Your task to perform on an android device: Open calendar and show me the fourth week of next month Image 0: 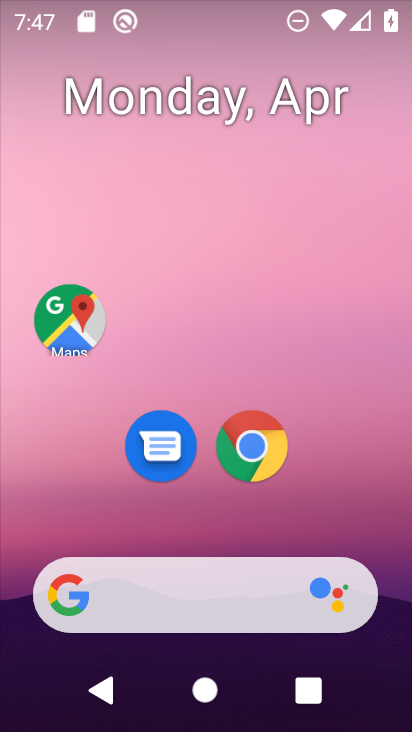
Step 0: drag from (357, 441) to (260, 16)
Your task to perform on an android device: Open calendar and show me the fourth week of next month Image 1: 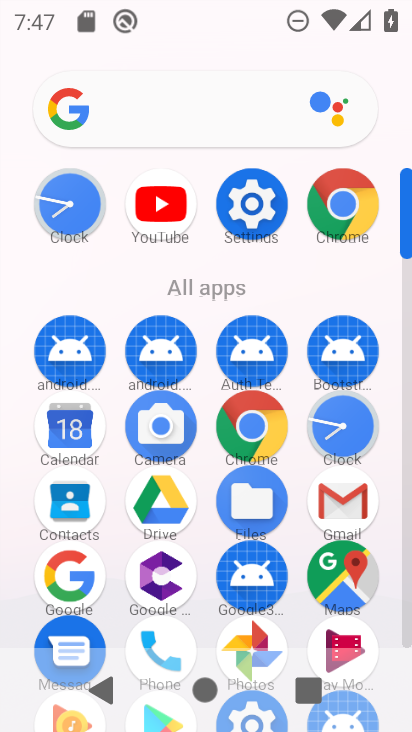
Step 1: drag from (18, 527) to (29, 229)
Your task to perform on an android device: Open calendar and show me the fourth week of next month Image 2: 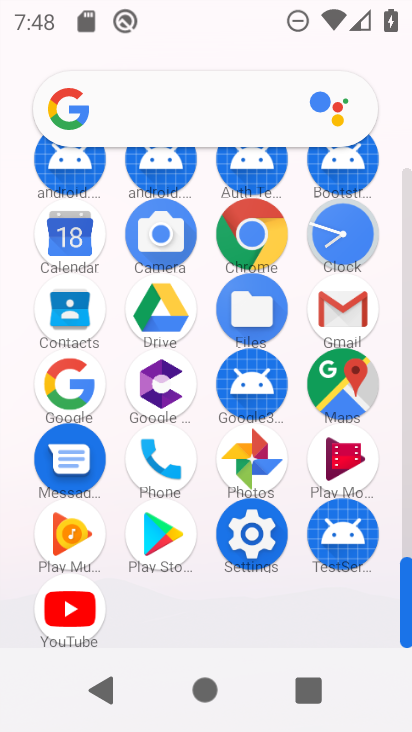
Step 2: drag from (21, 259) to (12, 495)
Your task to perform on an android device: Open calendar and show me the fourth week of next month Image 3: 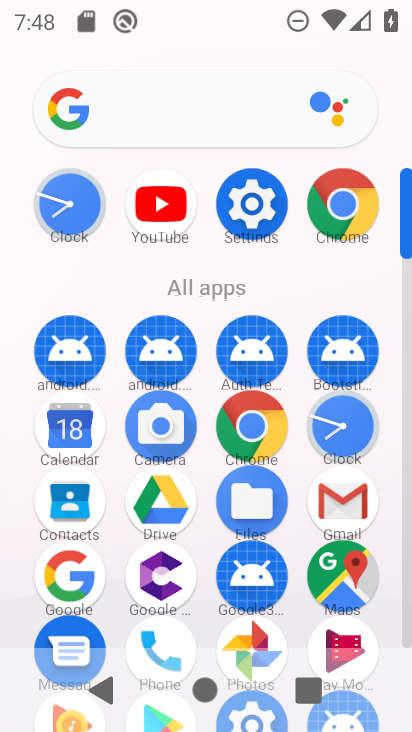
Step 3: click (65, 426)
Your task to perform on an android device: Open calendar and show me the fourth week of next month Image 4: 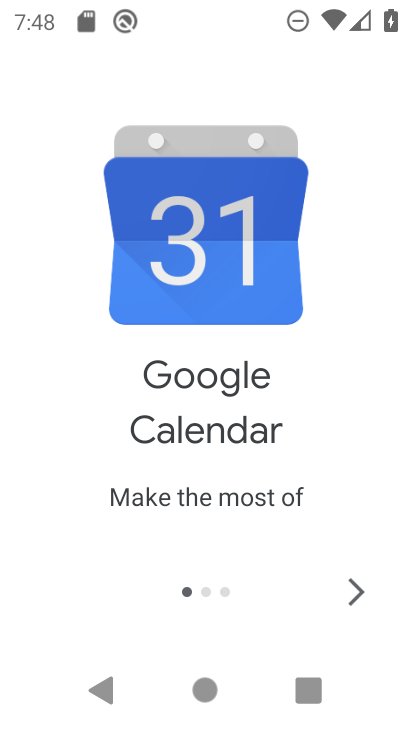
Step 4: click (352, 584)
Your task to perform on an android device: Open calendar and show me the fourth week of next month Image 5: 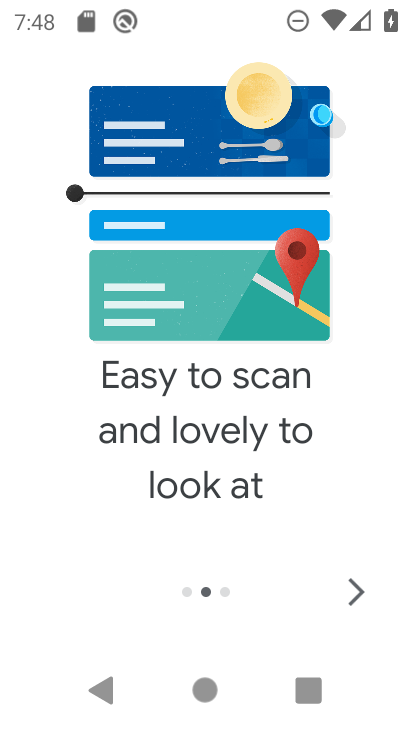
Step 5: click (352, 584)
Your task to perform on an android device: Open calendar and show me the fourth week of next month Image 6: 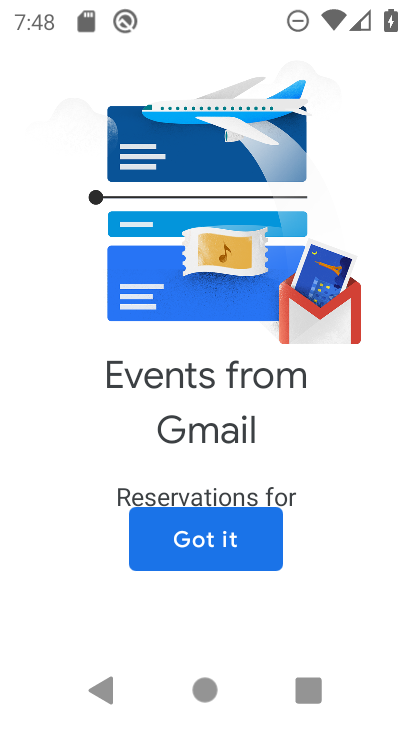
Step 6: click (238, 532)
Your task to perform on an android device: Open calendar and show me the fourth week of next month Image 7: 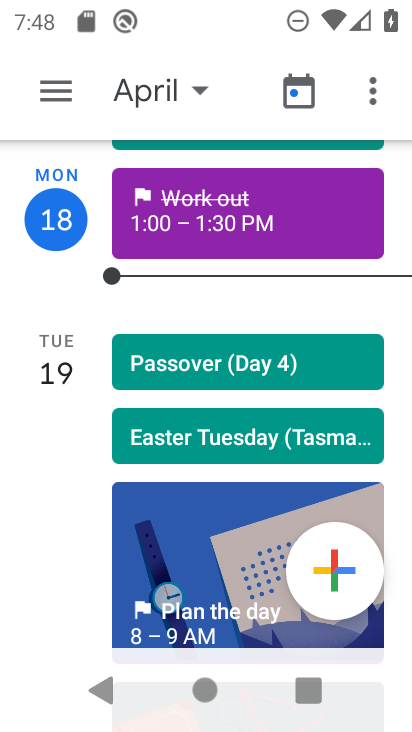
Step 7: click (66, 87)
Your task to perform on an android device: Open calendar and show me the fourth week of next month Image 8: 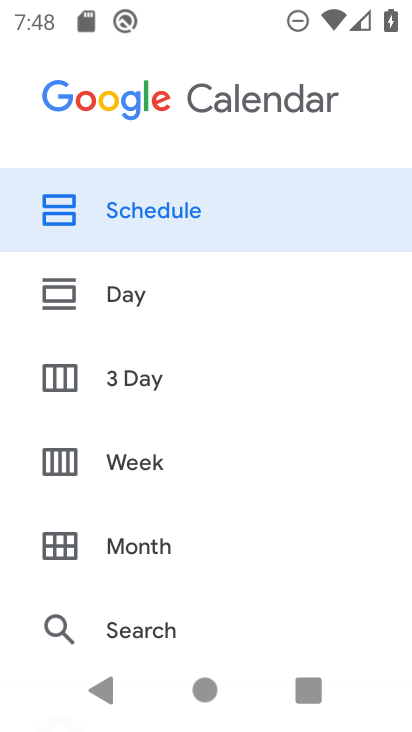
Step 8: click (205, 550)
Your task to perform on an android device: Open calendar and show me the fourth week of next month Image 9: 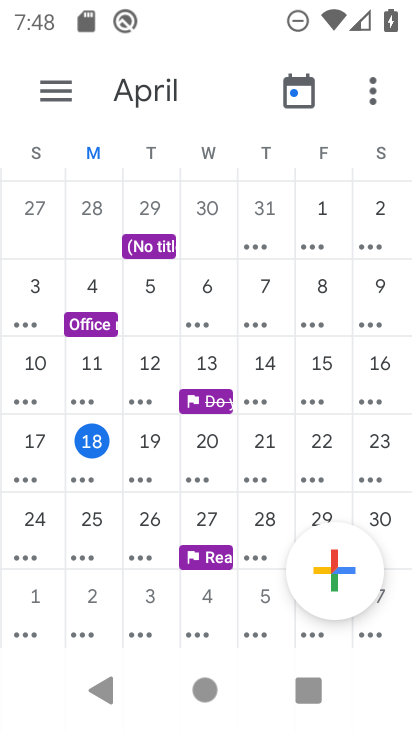
Step 9: drag from (331, 357) to (1, 297)
Your task to perform on an android device: Open calendar and show me the fourth week of next month Image 10: 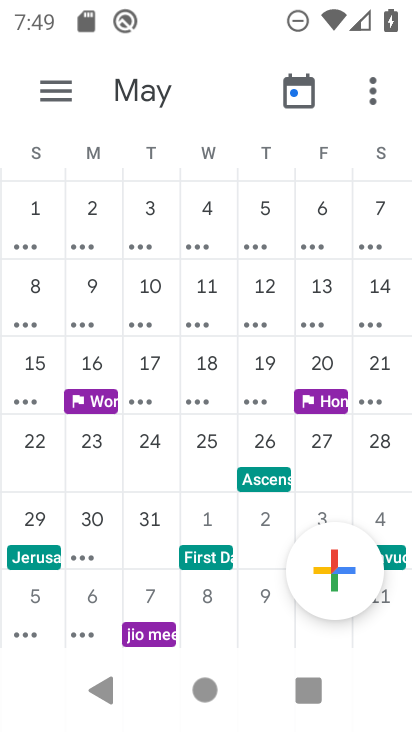
Step 10: click (97, 457)
Your task to perform on an android device: Open calendar and show me the fourth week of next month Image 11: 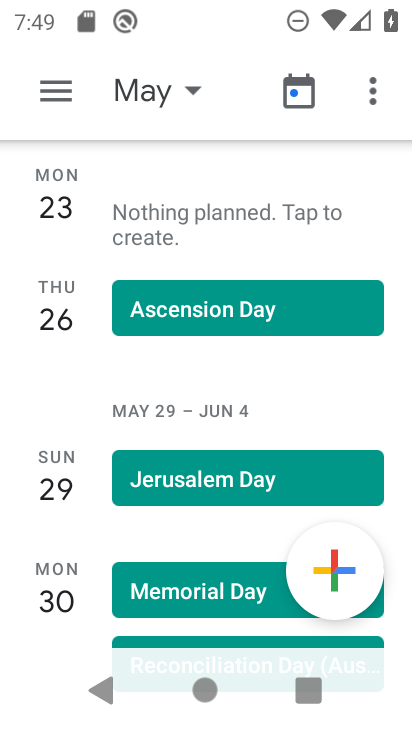
Step 11: drag from (108, 503) to (120, 158)
Your task to perform on an android device: Open calendar and show me the fourth week of next month Image 12: 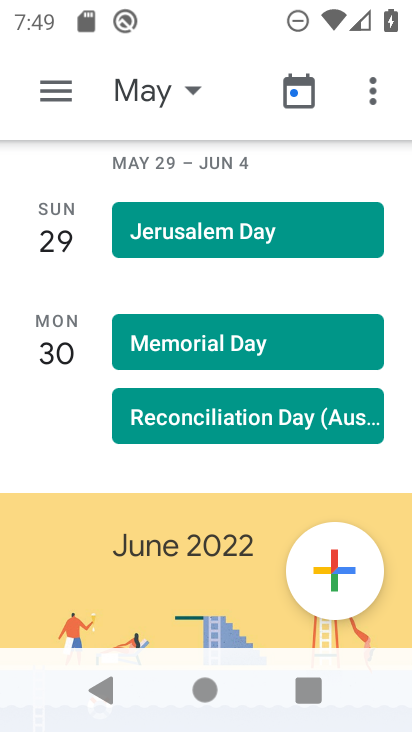
Step 12: click (40, 85)
Your task to perform on an android device: Open calendar and show me the fourth week of next month Image 13: 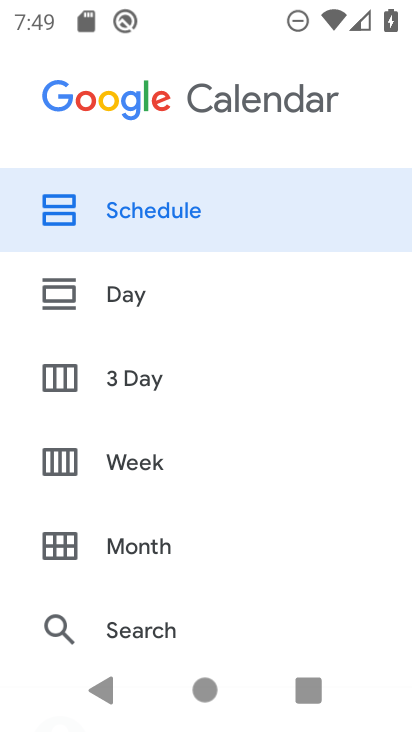
Step 13: click (113, 444)
Your task to perform on an android device: Open calendar and show me the fourth week of next month Image 14: 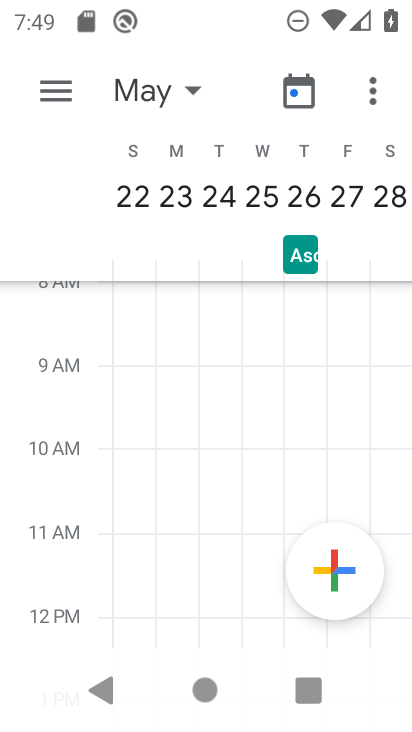
Step 14: task complete